Your task to perform on an android device: check storage Image 0: 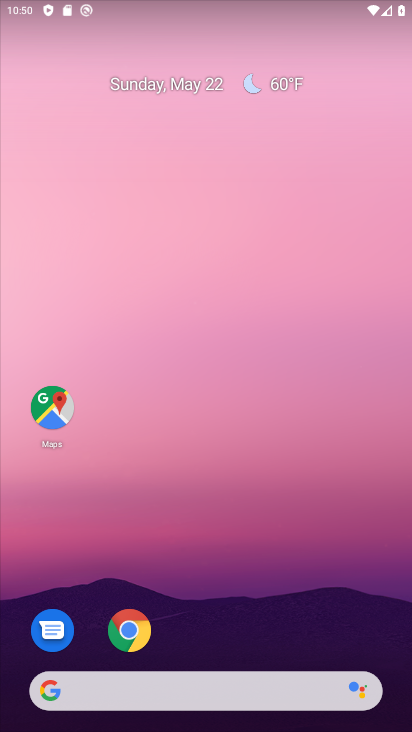
Step 0: drag from (288, 629) to (318, 190)
Your task to perform on an android device: check storage Image 1: 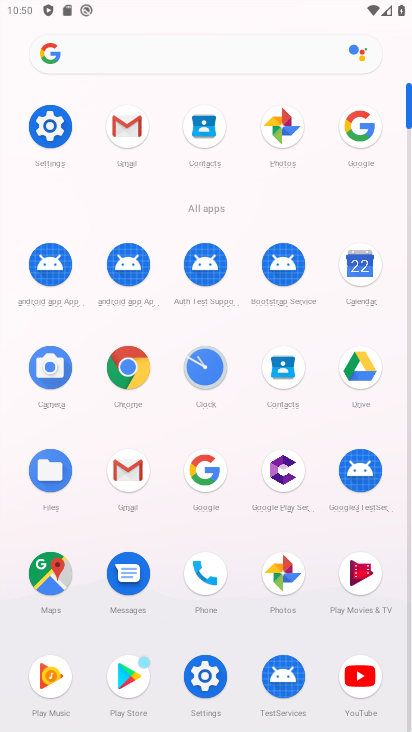
Step 1: click (207, 677)
Your task to perform on an android device: check storage Image 2: 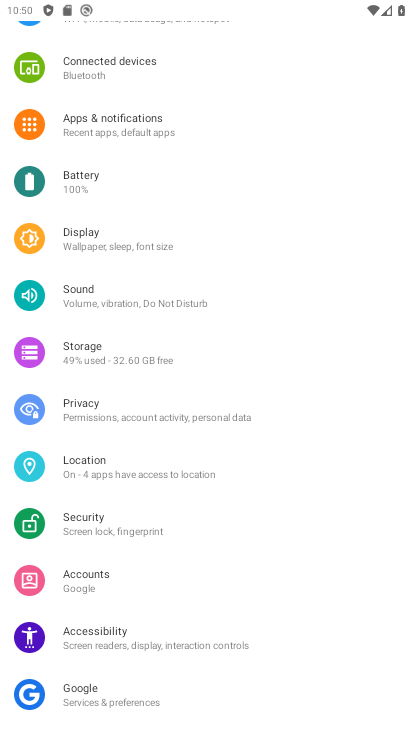
Step 2: click (97, 360)
Your task to perform on an android device: check storage Image 3: 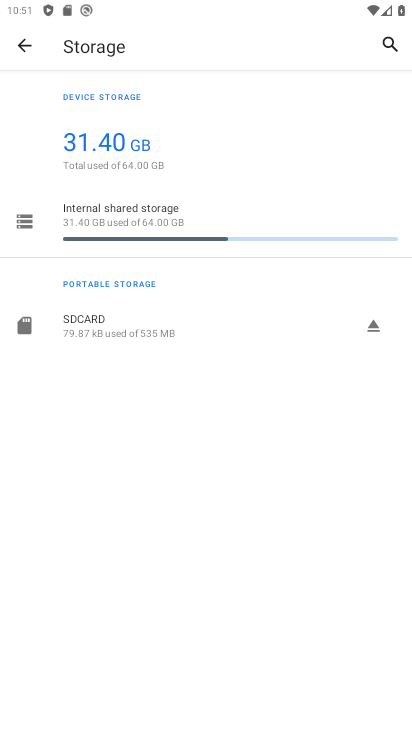
Step 3: task complete